Your task to perform on an android device: turn off data saver in the chrome app Image 0: 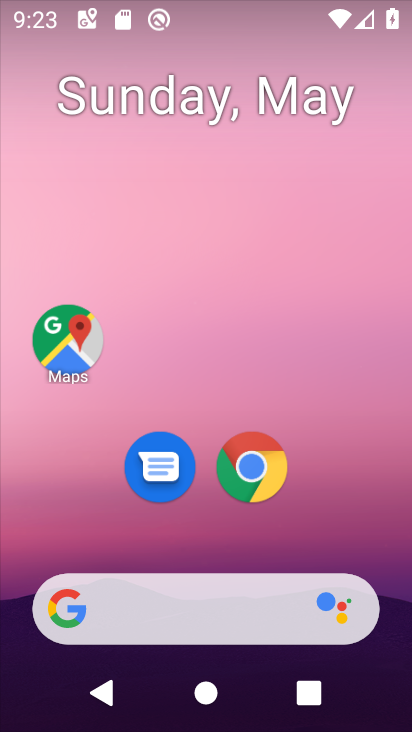
Step 0: drag from (384, 556) to (361, 129)
Your task to perform on an android device: turn off data saver in the chrome app Image 1: 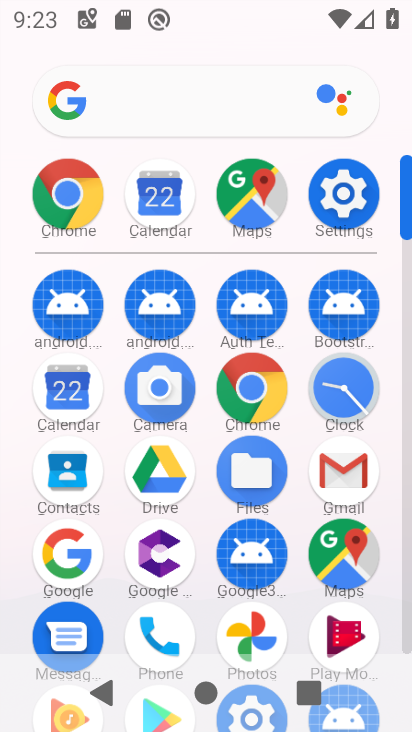
Step 1: click (275, 396)
Your task to perform on an android device: turn off data saver in the chrome app Image 2: 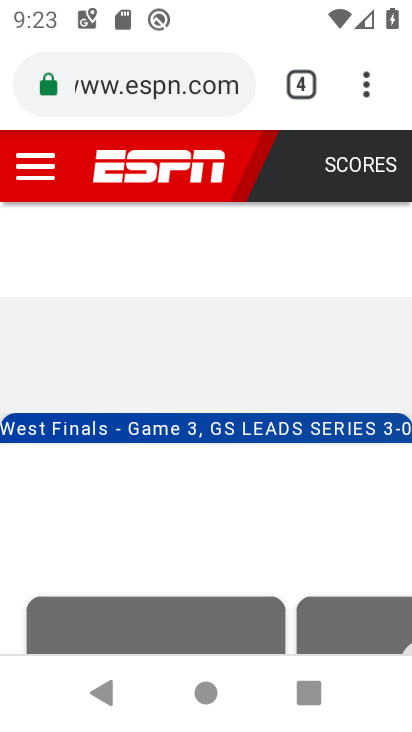
Step 2: task complete